Your task to perform on an android device: Open my contact list Image 0: 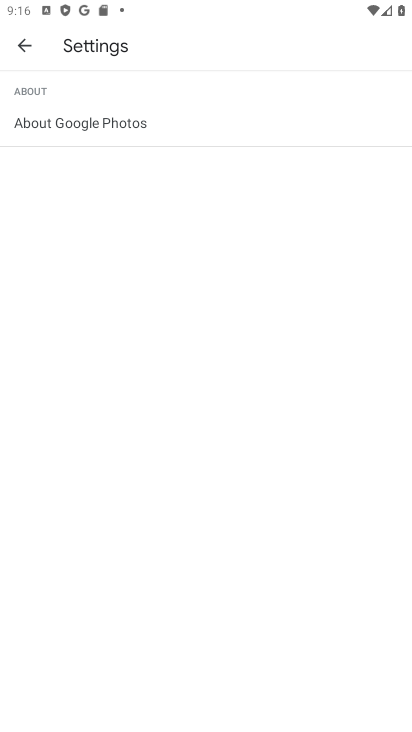
Step 0: press home button
Your task to perform on an android device: Open my contact list Image 1: 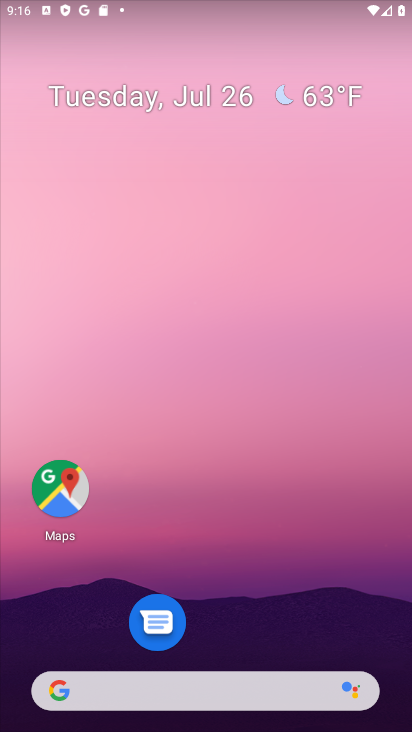
Step 1: drag from (273, 604) to (347, 61)
Your task to perform on an android device: Open my contact list Image 2: 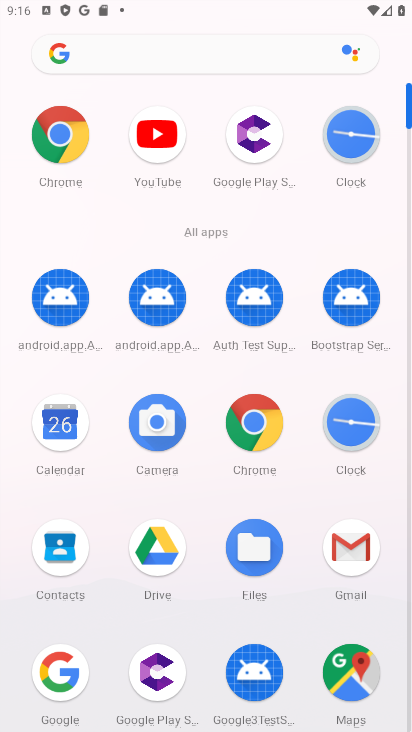
Step 2: drag from (236, 652) to (345, 169)
Your task to perform on an android device: Open my contact list Image 3: 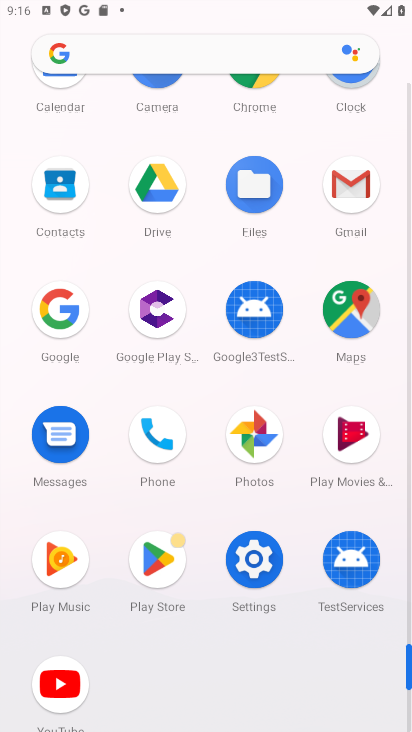
Step 3: click (153, 449)
Your task to perform on an android device: Open my contact list Image 4: 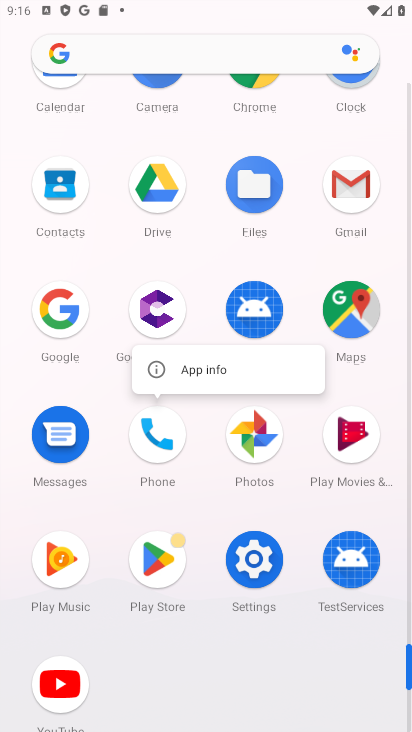
Step 4: click (153, 449)
Your task to perform on an android device: Open my contact list Image 5: 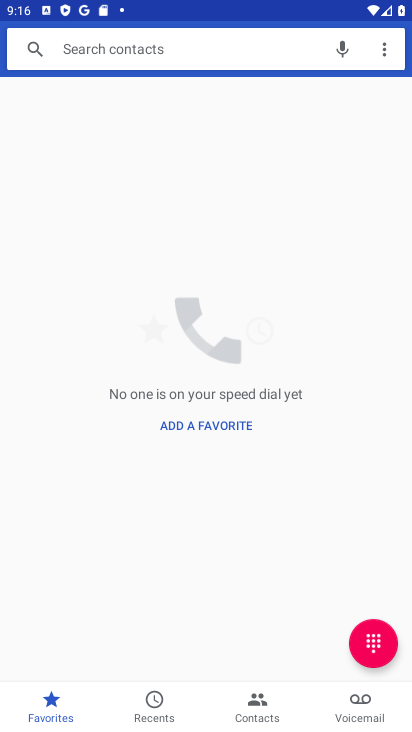
Step 5: click (240, 710)
Your task to perform on an android device: Open my contact list Image 6: 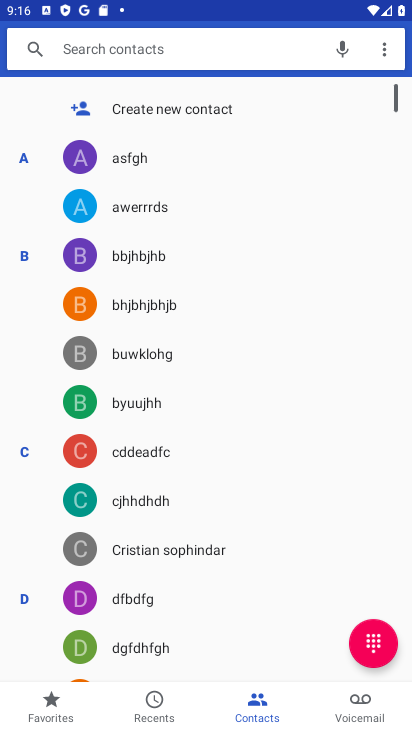
Step 6: task complete